Your task to perform on an android device: Add "amazon basics triple a" to the cart on ebay, then select checkout. Image 0: 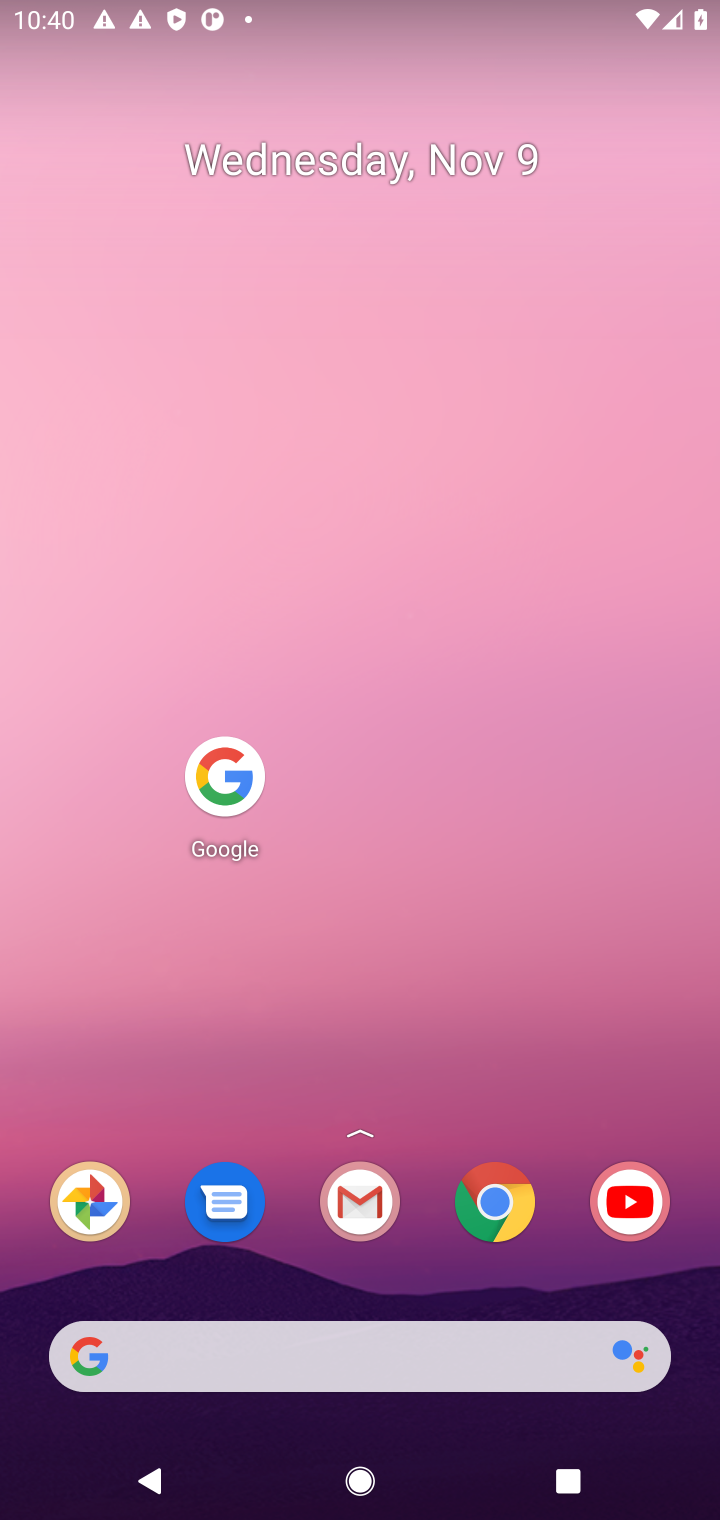
Step 0: click (228, 799)
Your task to perform on an android device: Add "amazon basics triple a" to the cart on ebay, then select checkout. Image 1: 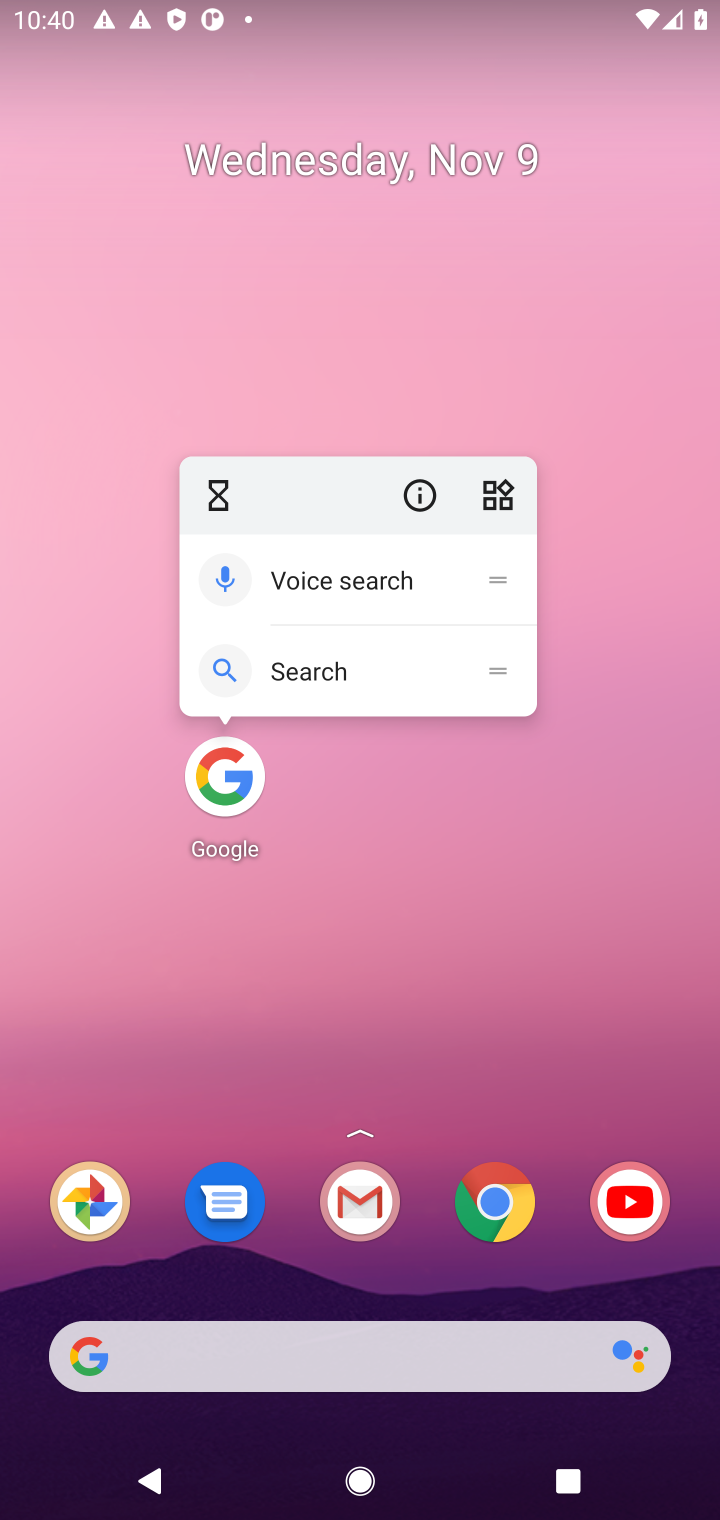
Step 1: click (224, 784)
Your task to perform on an android device: Add "amazon basics triple a" to the cart on ebay, then select checkout. Image 2: 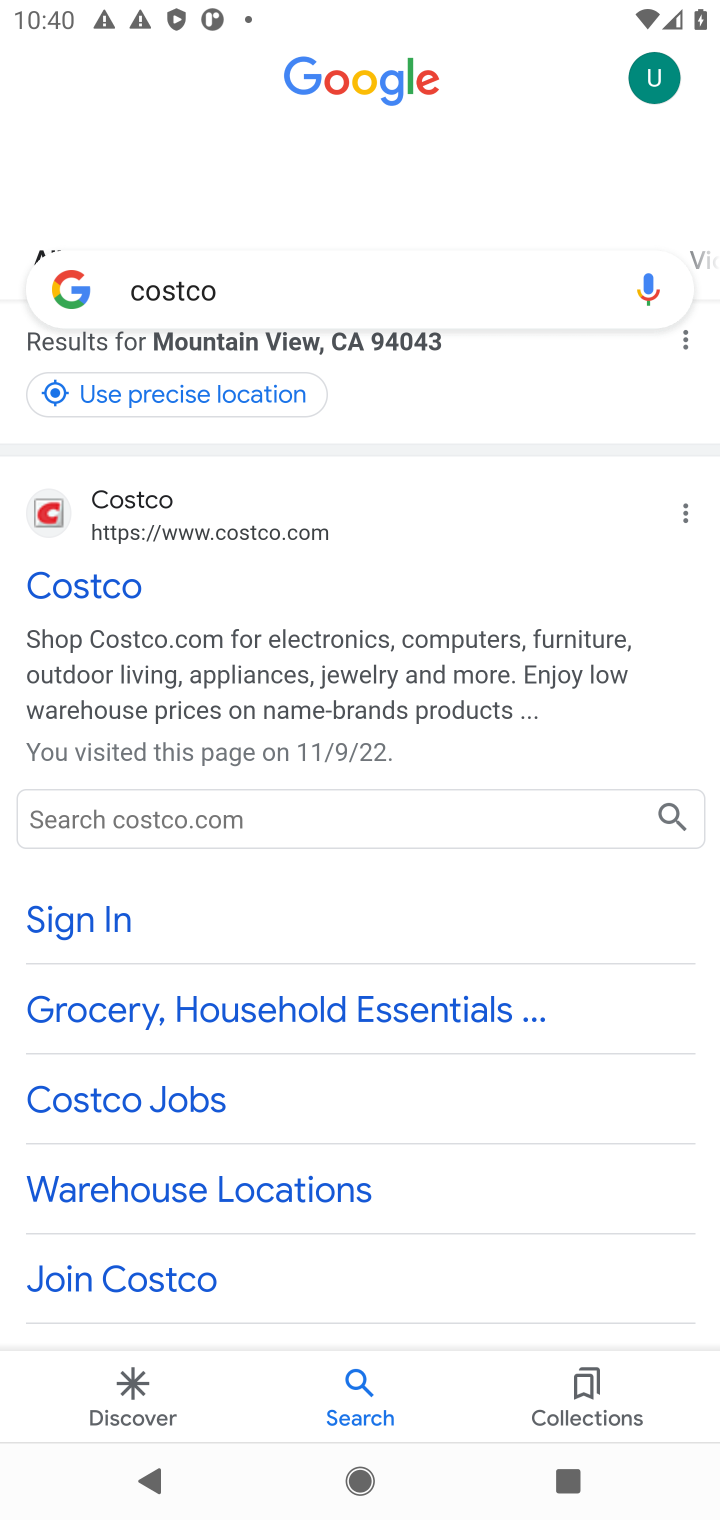
Step 2: drag from (323, 497) to (320, 1022)
Your task to perform on an android device: Add "amazon basics triple a" to the cart on ebay, then select checkout. Image 3: 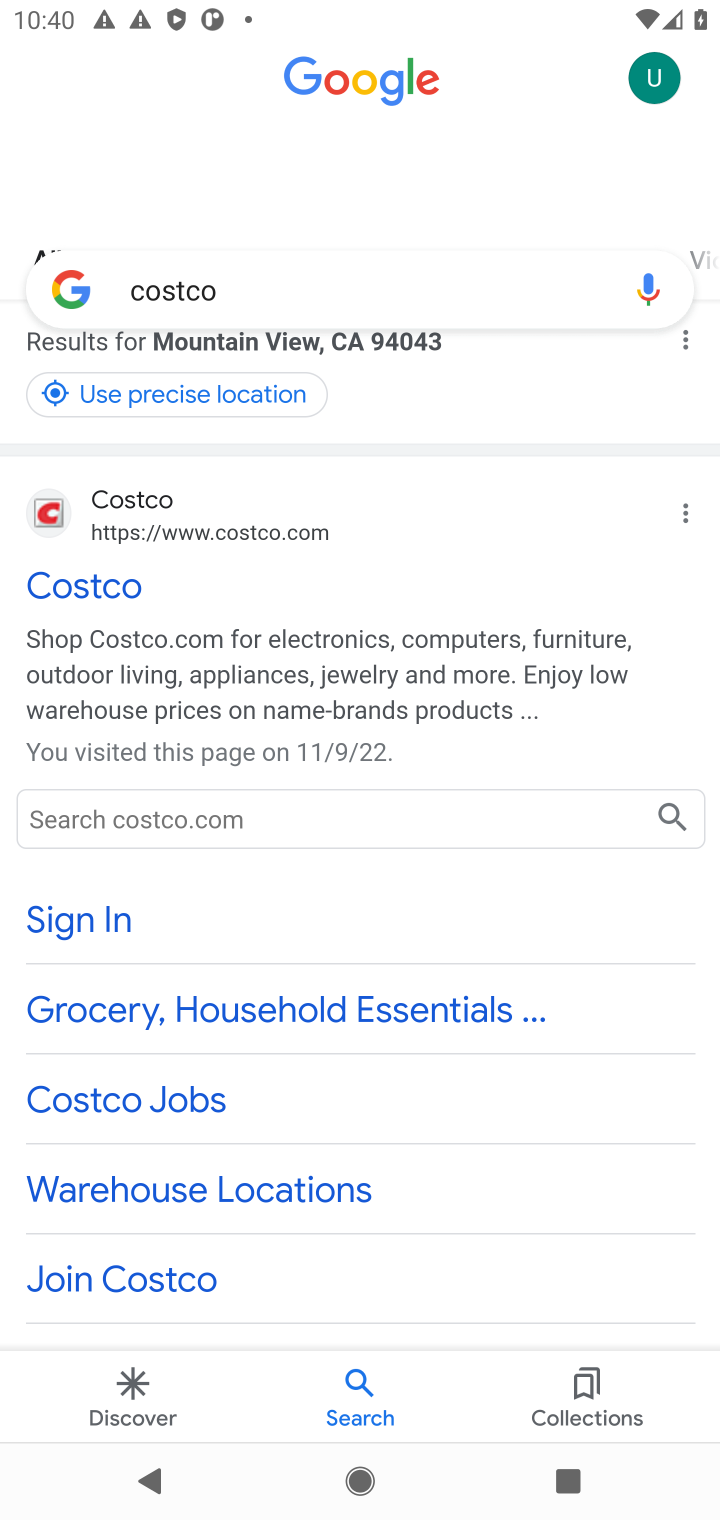
Step 3: click (274, 281)
Your task to perform on an android device: Add "amazon basics triple a" to the cart on ebay, then select checkout. Image 4: 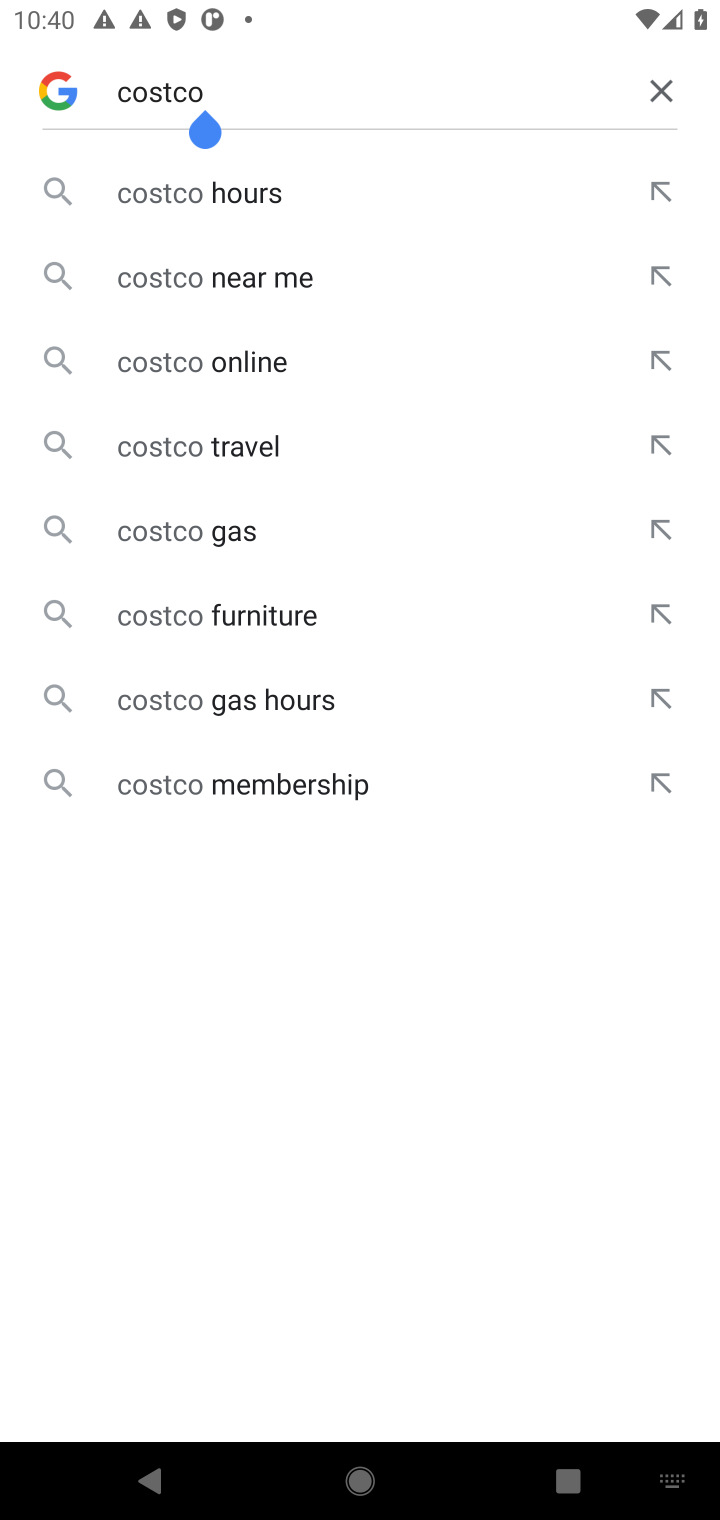
Step 4: click (666, 93)
Your task to perform on an android device: Add "amazon basics triple a" to the cart on ebay, then select checkout. Image 5: 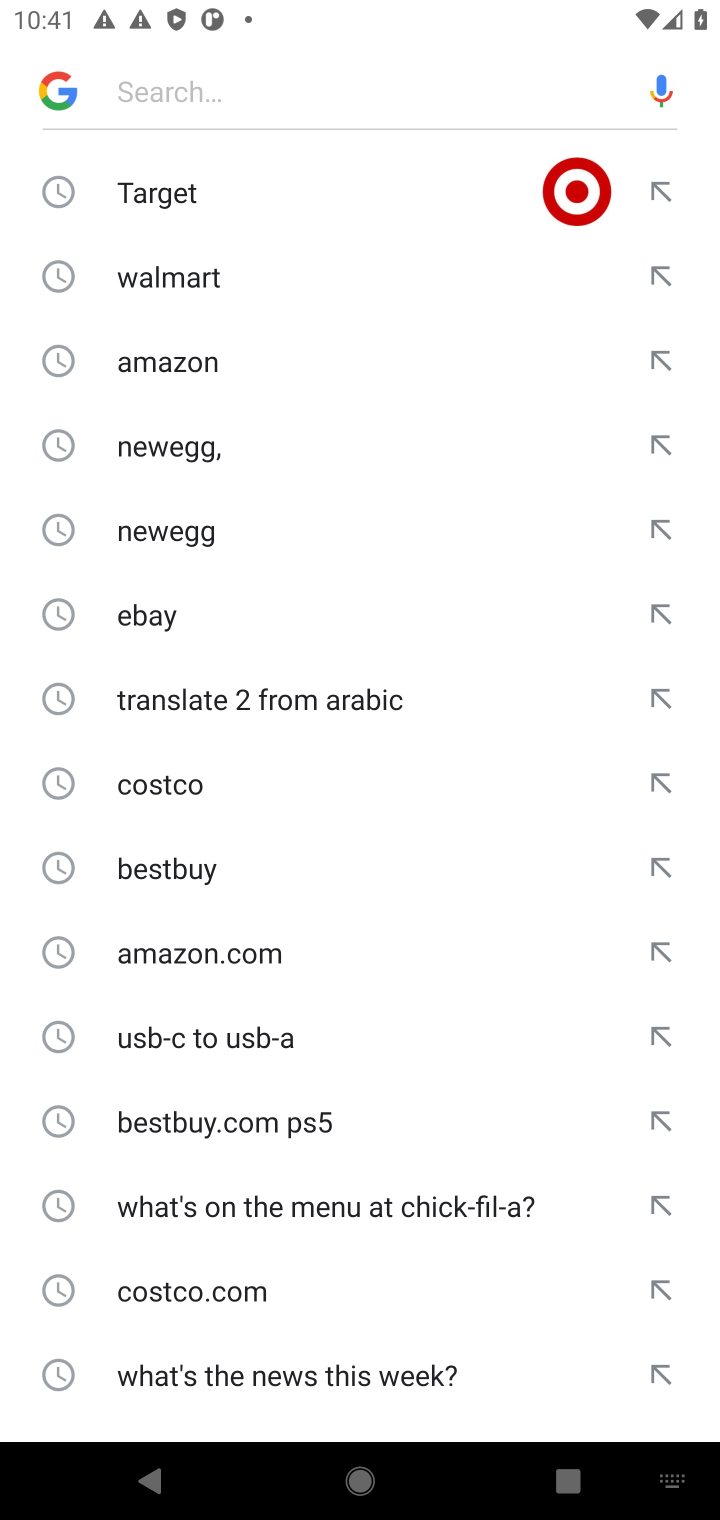
Step 5: click (137, 626)
Your task to perform on an android device: Add "amazon basics triple a" to the cart on ebay, then select checkout. Image 6: 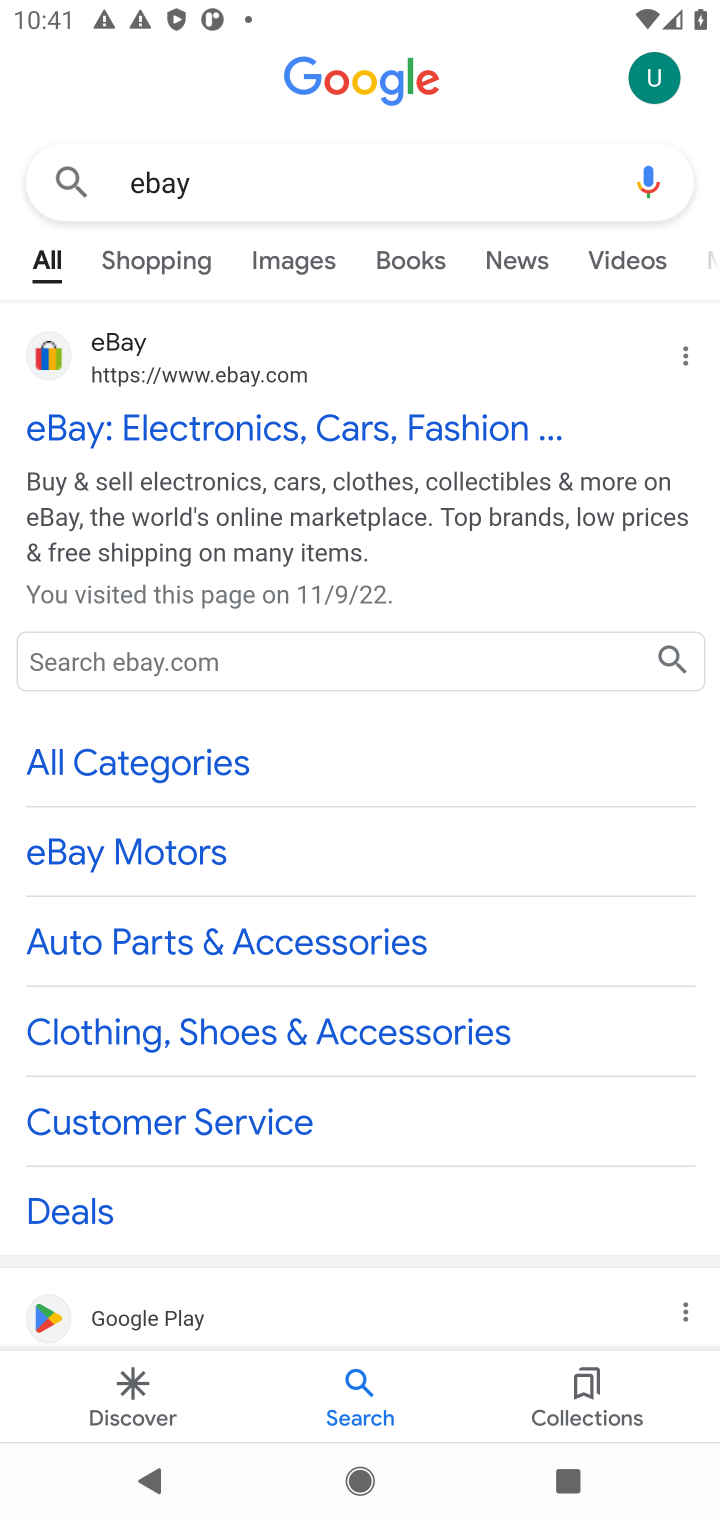
Step 6: click (188, 429)
Your task to perform on an android device: Add "amazon basics triple a" to the cart on ebay, then select checkout. Image 7: 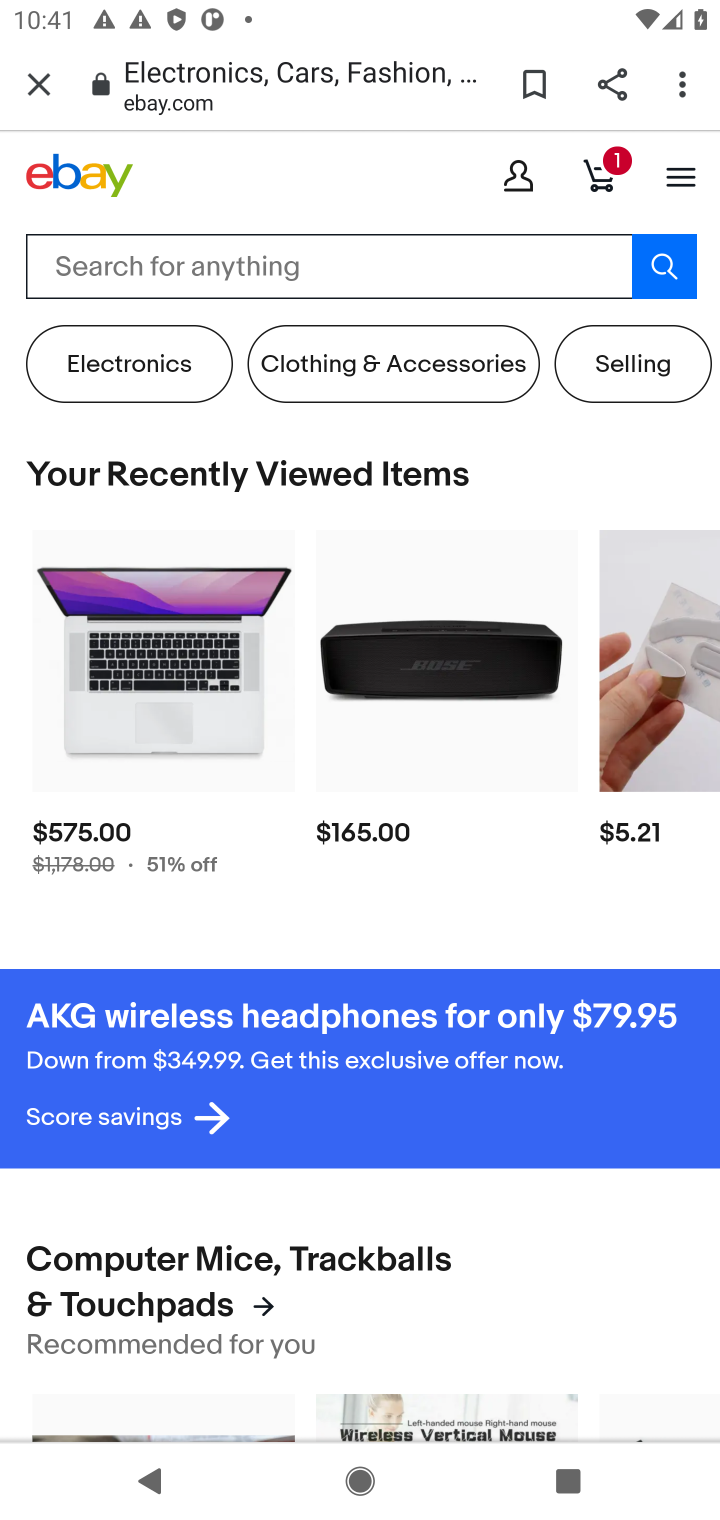
Step 7: click (216, 264)
Your task to perform on an android device: Add "amazon basics triple a" to the cart on ebay, then select checkout. Image 8: 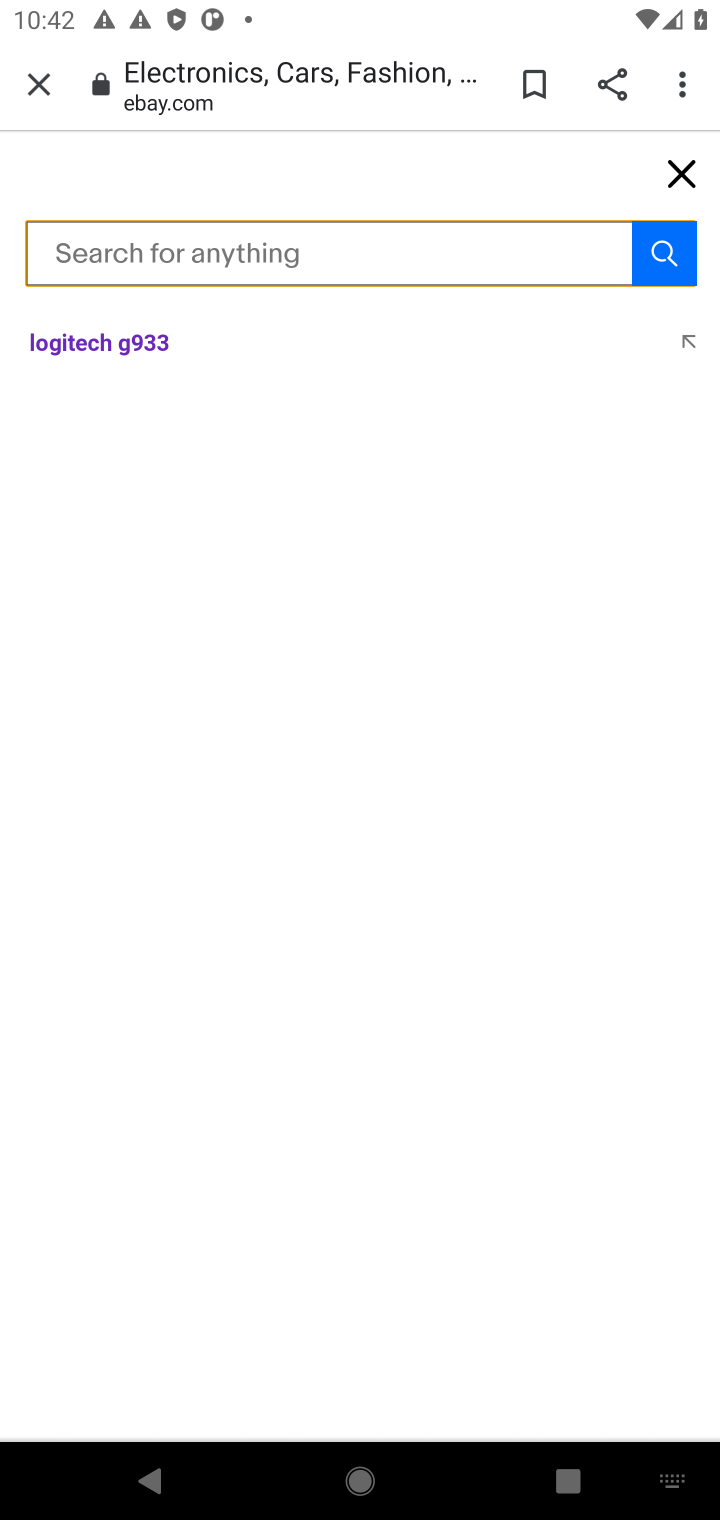
Step 8: type "amazon basics triple a"
Your task to perform on an android device: Add "amazon basics triple a" to the cart on ebay, then select checkout. Image 9: 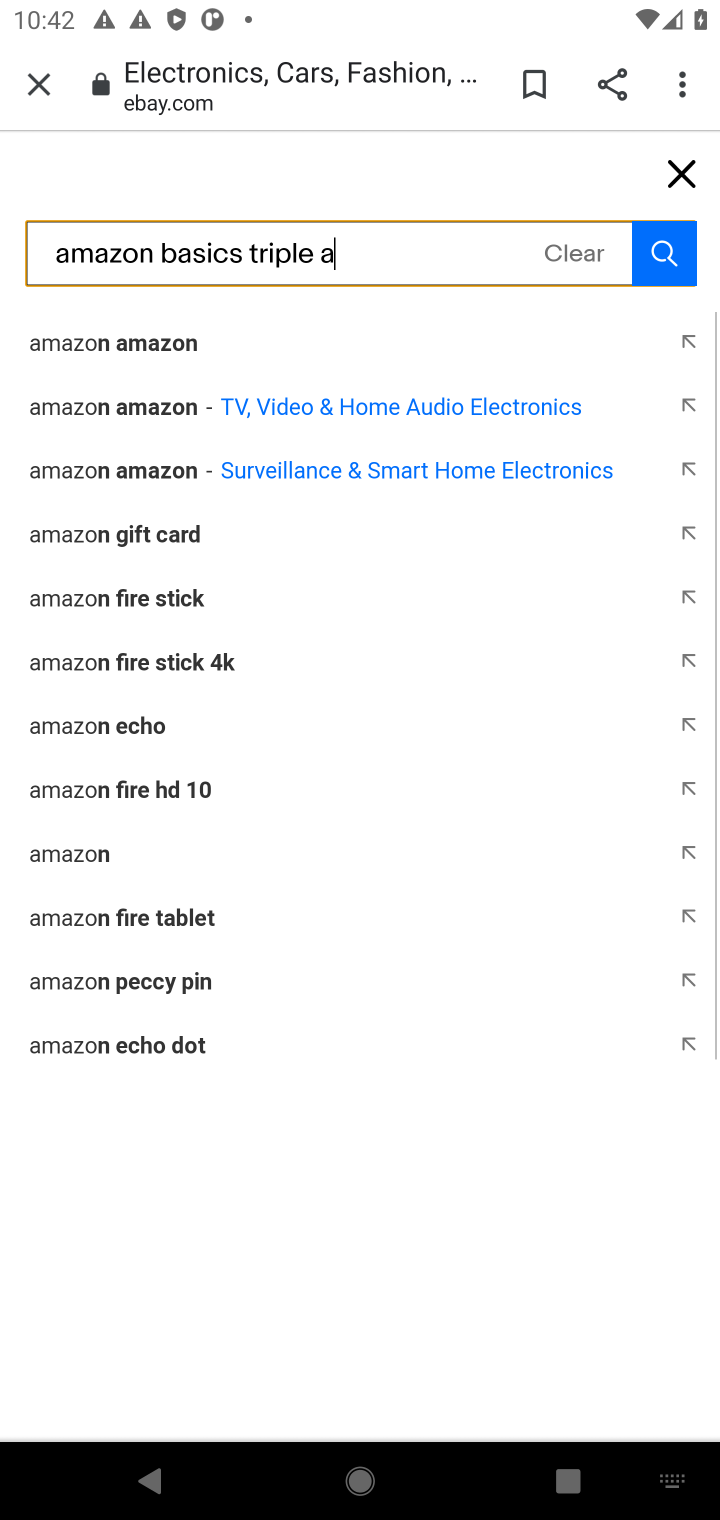
Step 9: press enter
Your task to perform on an android device: Add "amazon basics triple a" to the cart on ebay, then select checkout. Image 10: 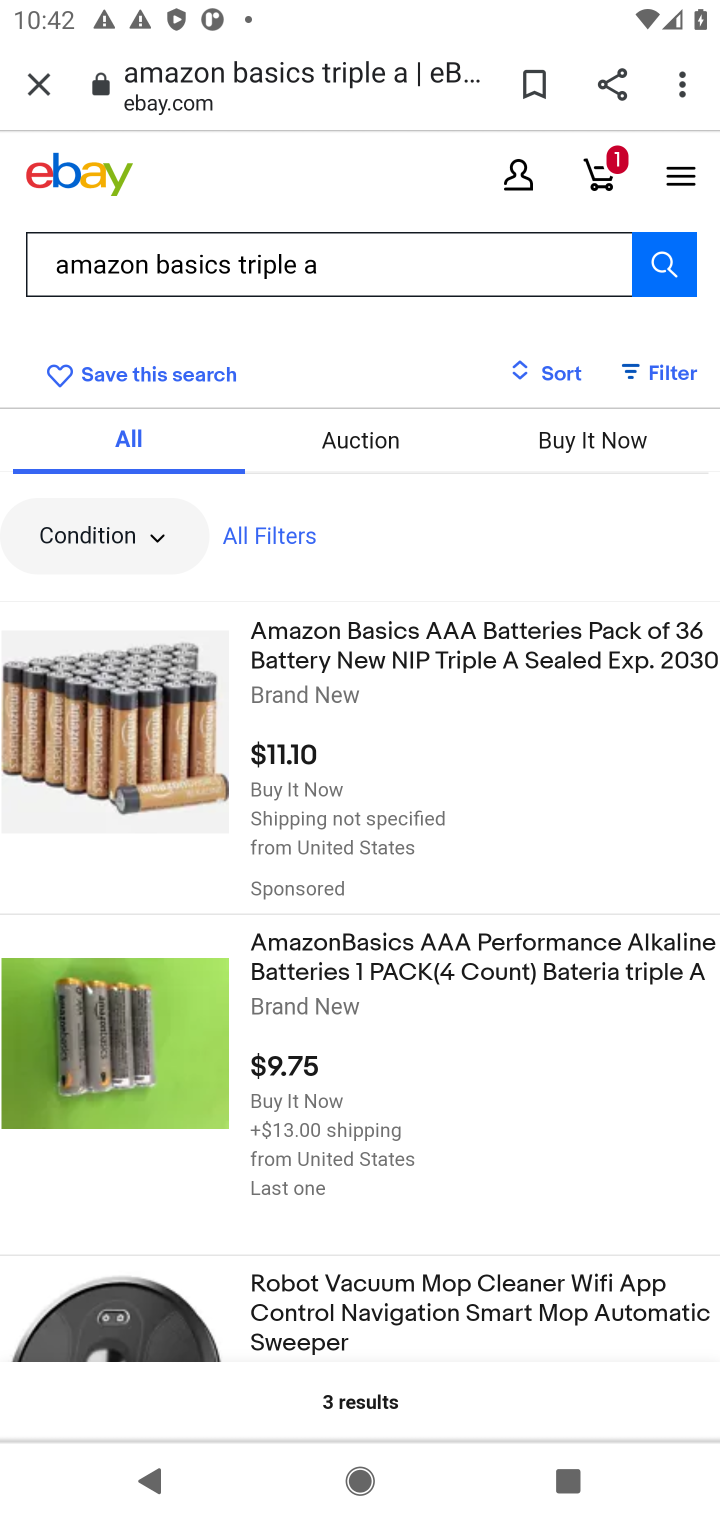
Step 10: click (350, 694)
Your task to perform on an android device: Add "amazon basics triple a" to the cart on ebay, then select checkout. Image 11: 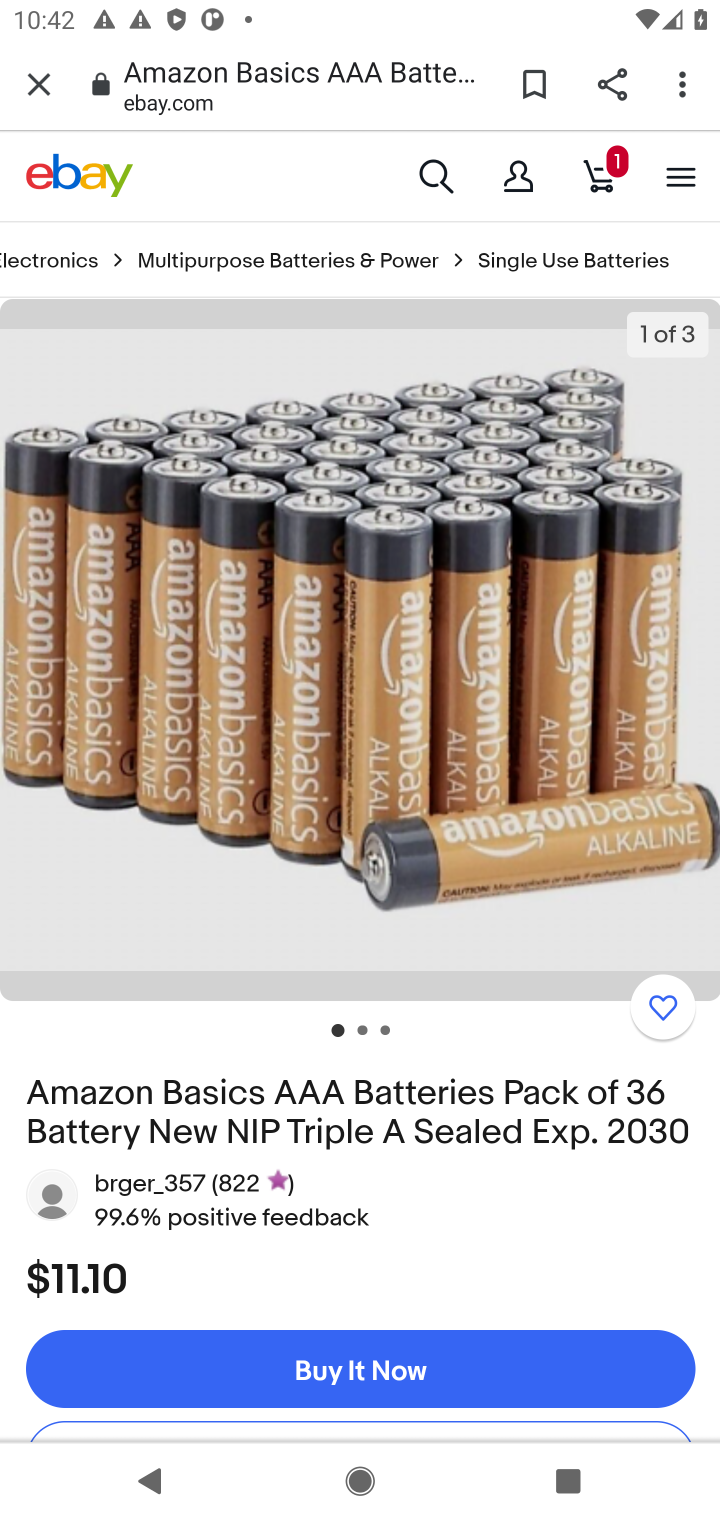
Step 11: drag from (408, 1131) to (674, 548)
Your task to perform on an android device: Add "amazon basics triple a" to the cart on ebay, then select checkout. Image 12: 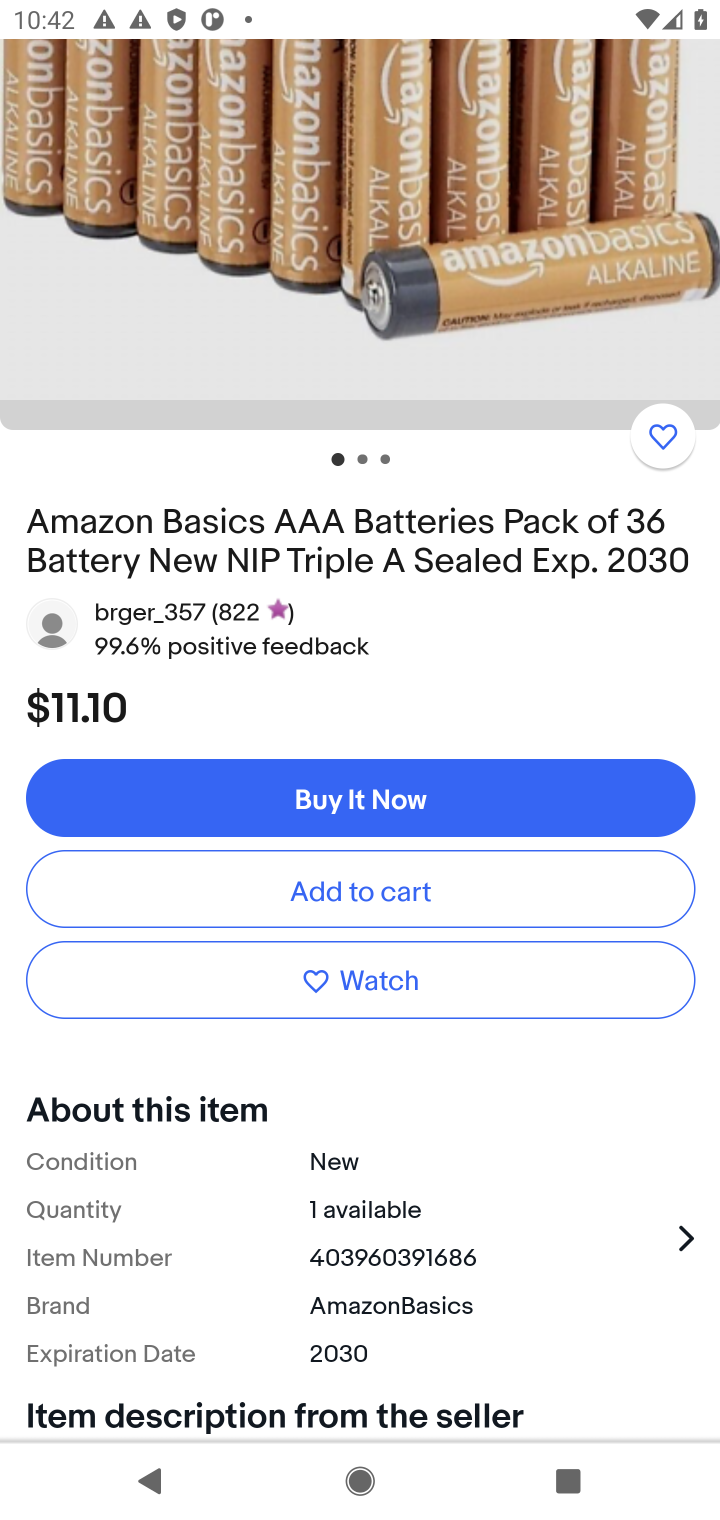
Step 12: click (361, 888)
Your task to perform on an android device: Add "amazon basics triple a" to the cart on ebay, then select checkout. Image 13: 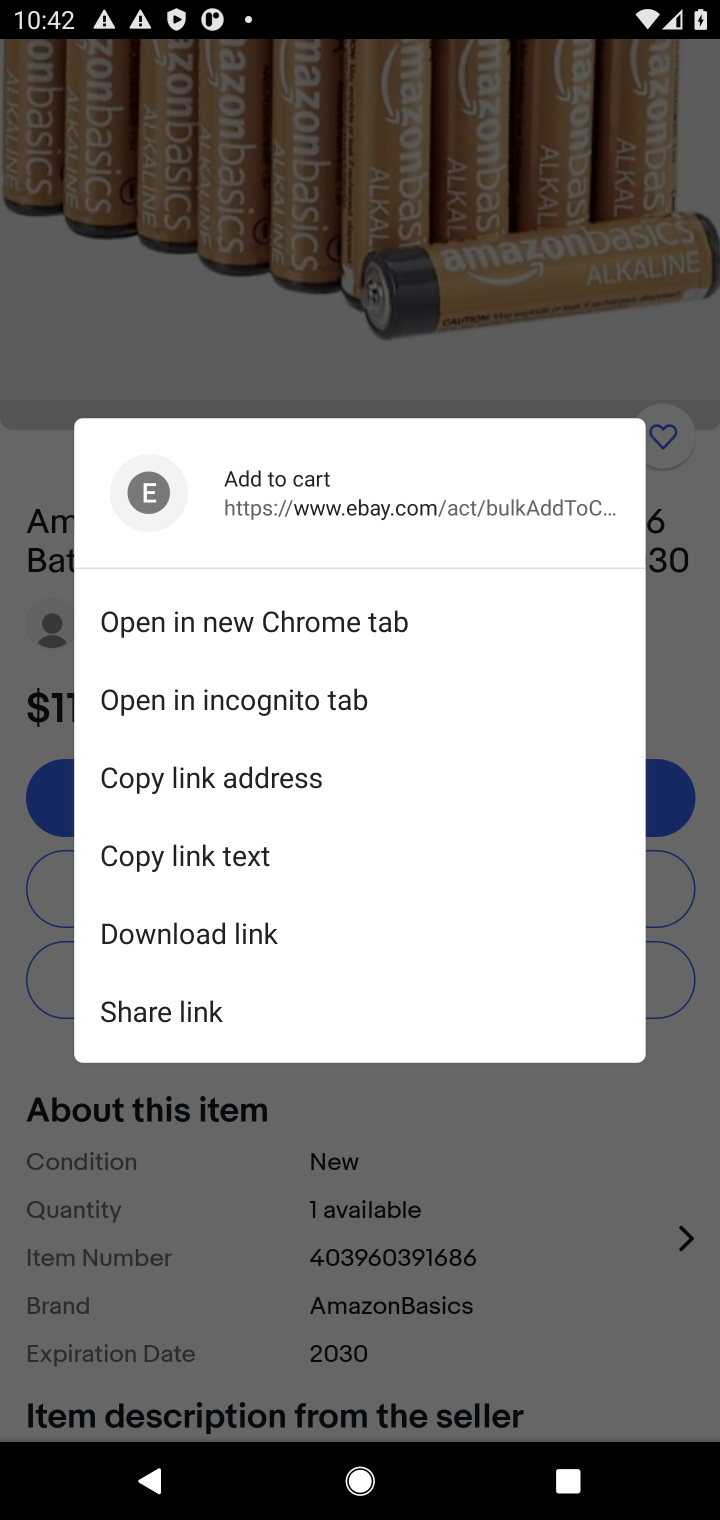
Step 13: click (670, 898)
Your task to perform on an android device: Add "amazon basics triple a" to the cart on ebay, then select checkout. Image 14: 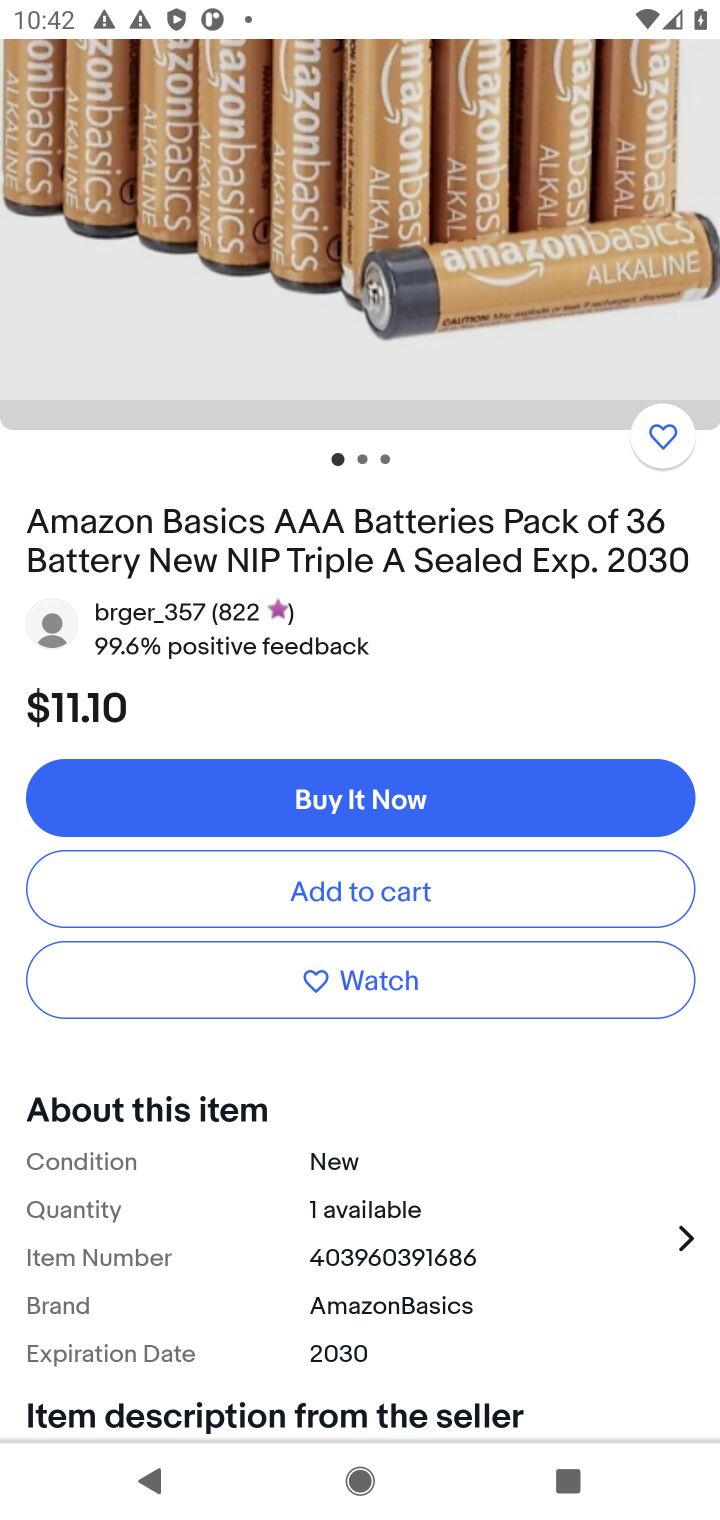
Step 14: click (363, 882)
Your task to perform on an android device: Add "amazon basics triple a" to the cart on ebay, then select checkout. Image 15: 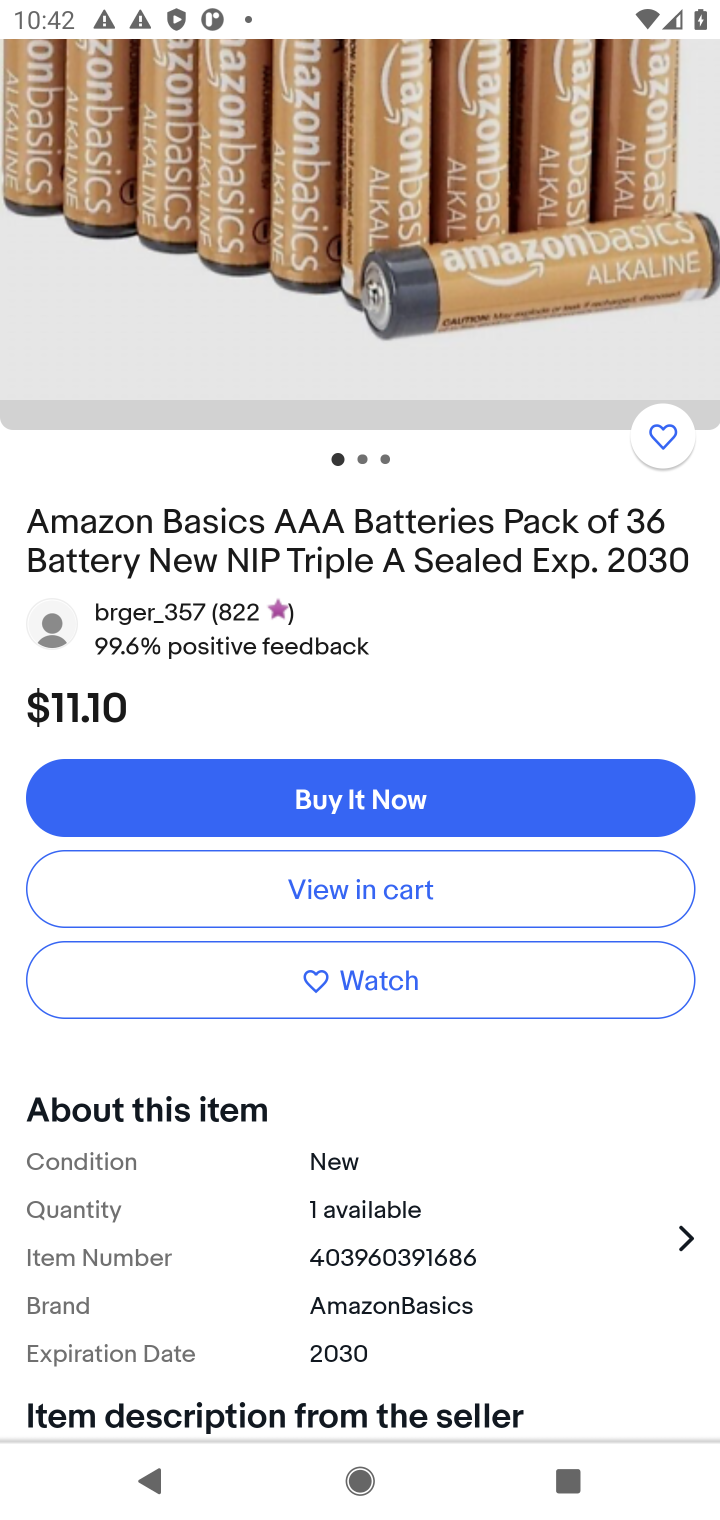
Step 15: click (363, 882)
Your task to perform on an android device: Add "amazon basics triple a" to the cart on ebay, then select checkout. Image 16: 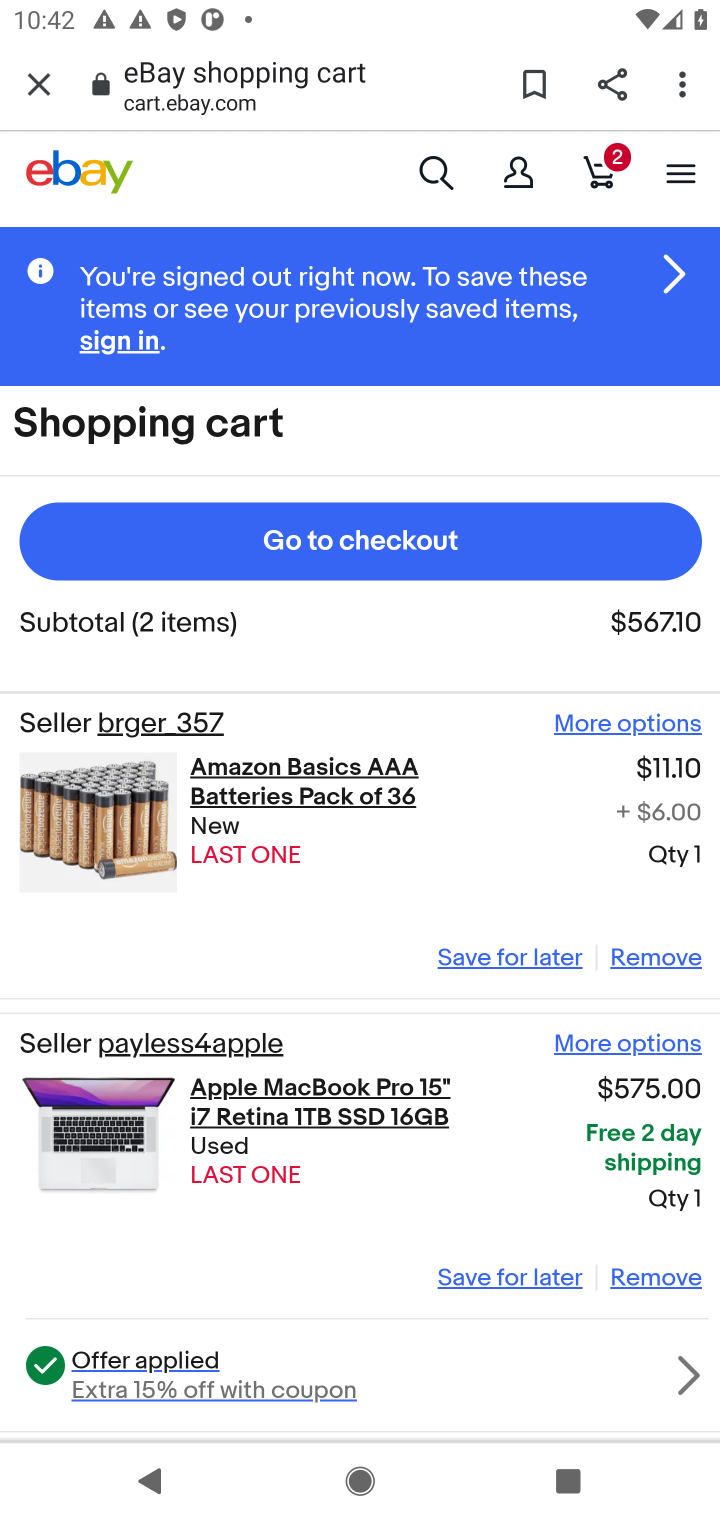
Step 16: click (675, 1268)
Your task to perform on an android device: Add "amazon basics triple a" to the cart on ebay, then select checkout. Image 17: 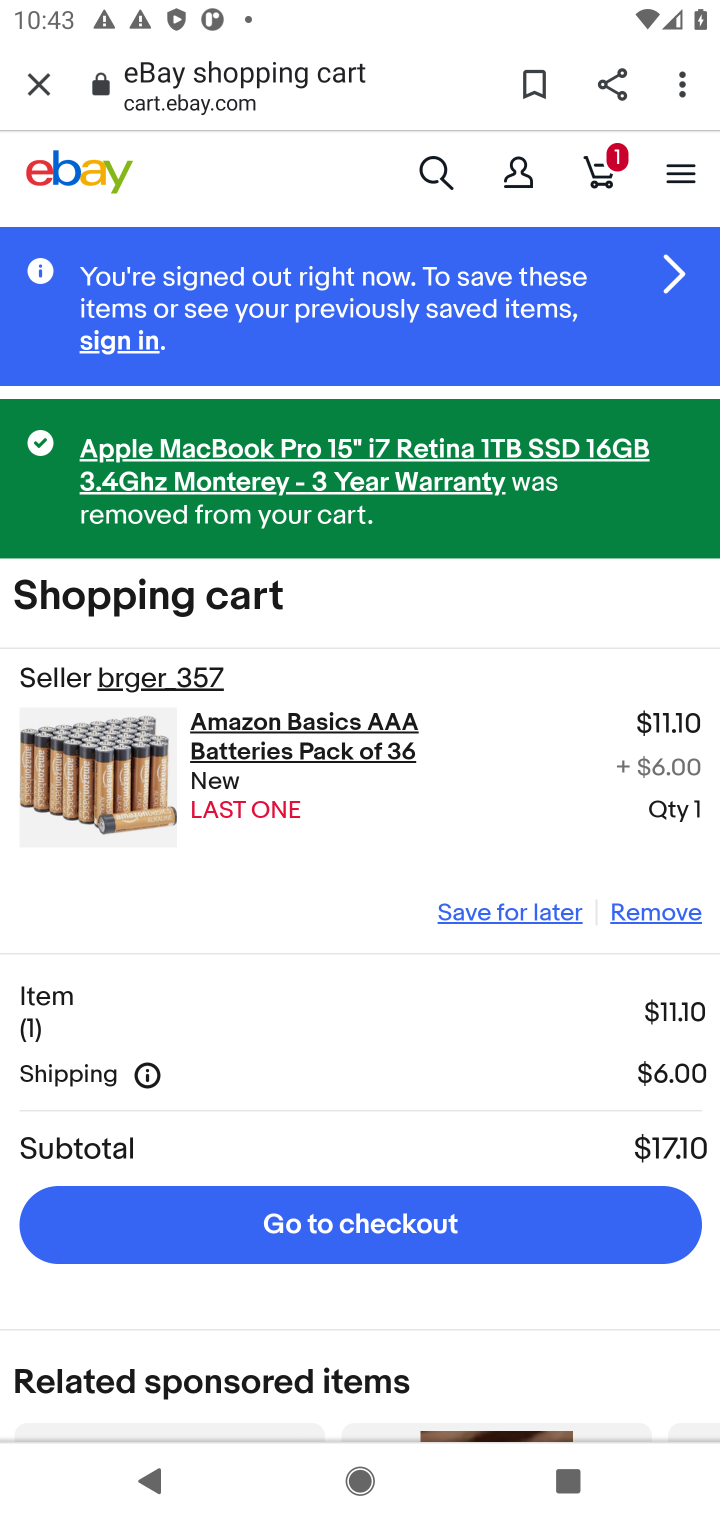
Step 17: click (357, 1235)
Your task to perform on an android device: Add "amazon basics triple a" to the cart on ebay, then select checkout. Image 18: 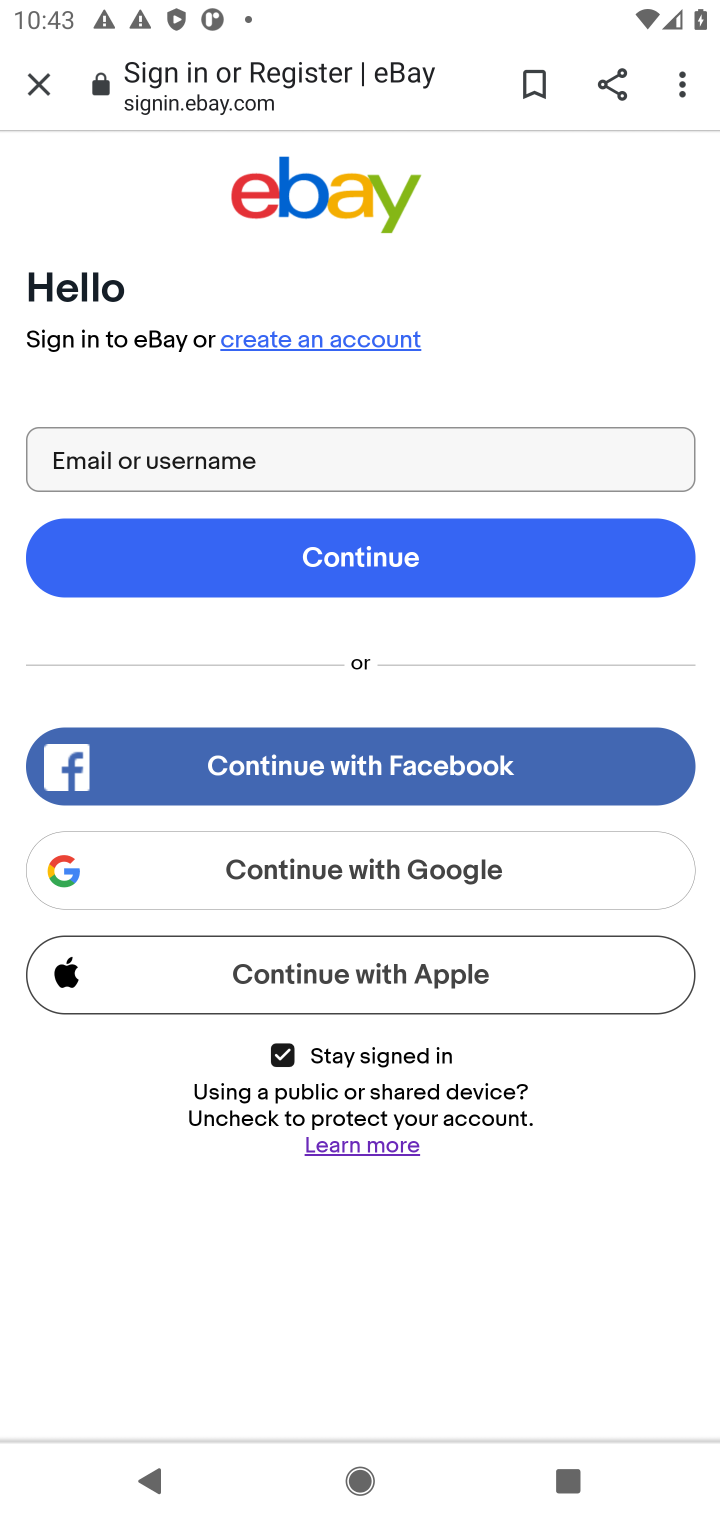
Step 18: task complete